Your task to perform on an android device: Go to internet settings Image 0: 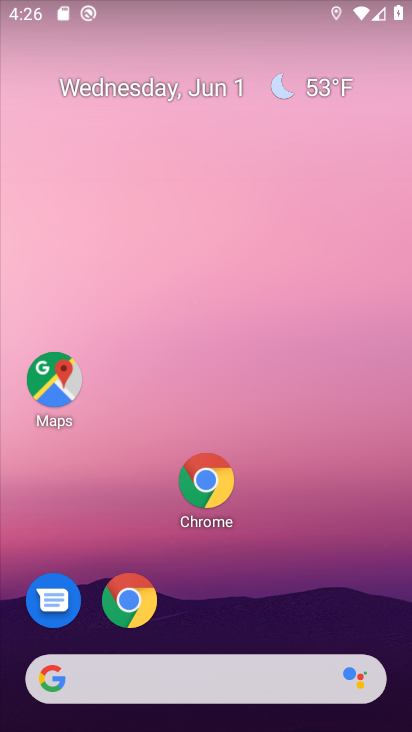
Step 0: drag from (254, 712) to (81, 16)
Your task to perform on an android device: Go to internet settings Image 1: 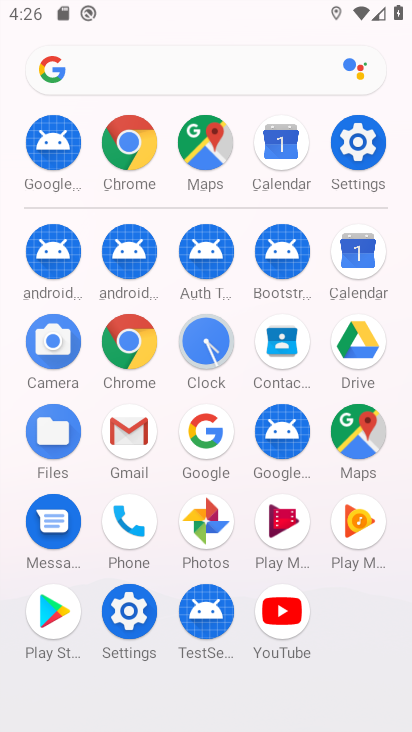
Step 1: click (148, 627)
Your task to perform on an android device: Go to internet settings Image 2: 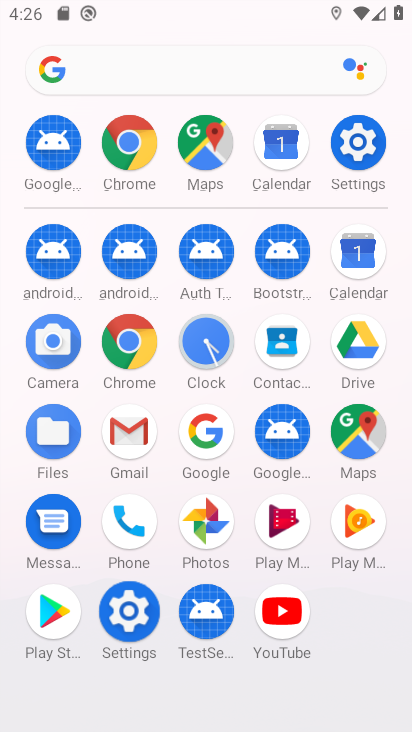
Step 2: click (146, 625)
Your task to perform on an android device: Go to internet settings Image 3: 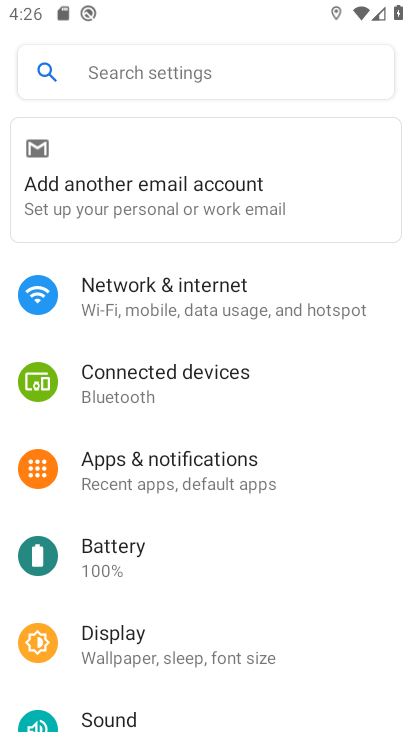
Step 3: click (181, 297)
Your task to perform on an android device: Go to internet settings Image 4: 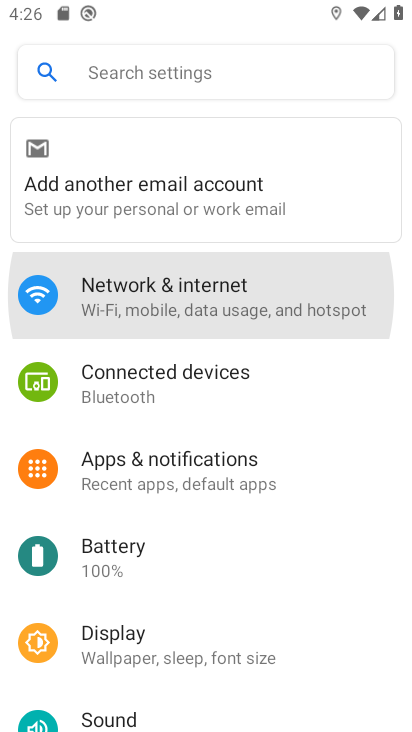
Step 4: click (181, 297)
Your task to perform on an android device: Go to internet settings Image 5: 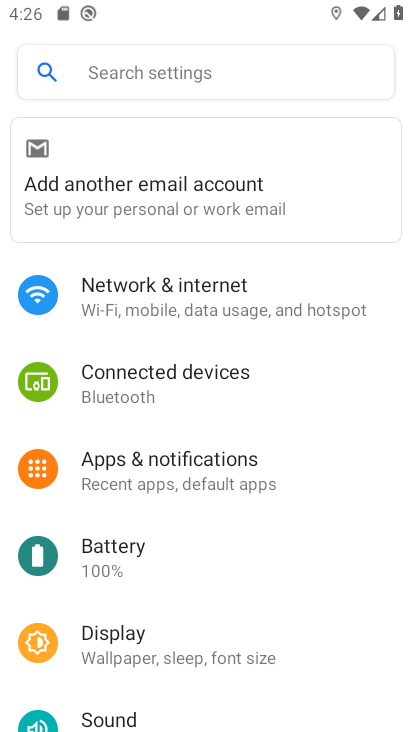
Step 5: click (181, 297)
Your task to perform on an android device: Go to internet settings Image 6: 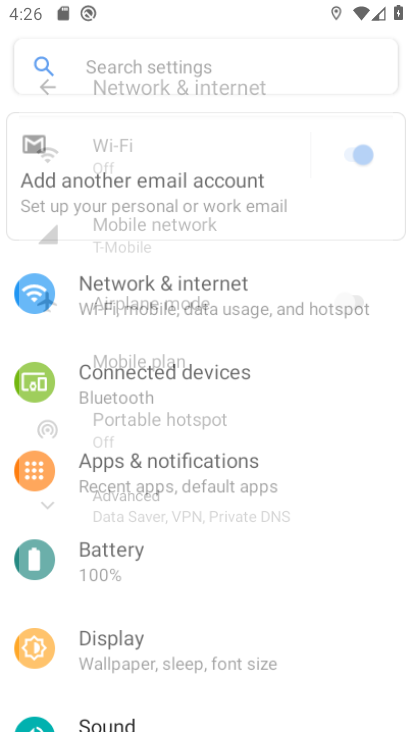
Step 6: click (181, 297)
Your task to perform on an android device: Go to internet settings Image 7: 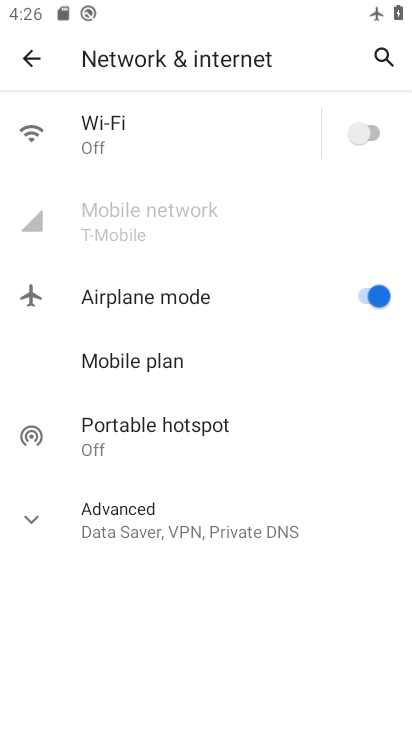
Step 7: click (360, 145)
Your task to perform on an android device: Go to internet settings Image 8: 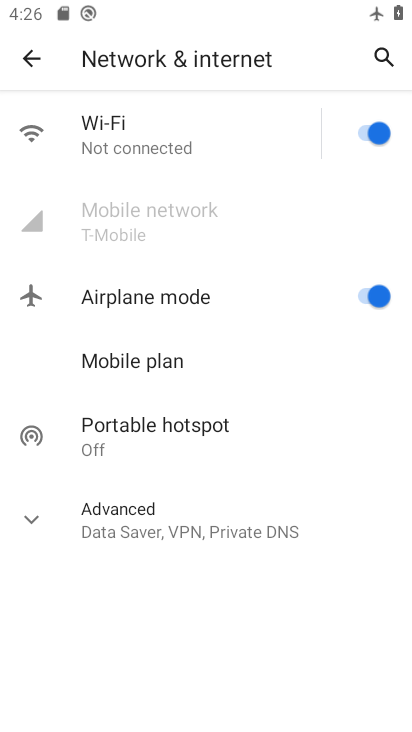
Step 8: task complete